Your task to perform on an android device: turn pop-ups off in chrome Image 0: 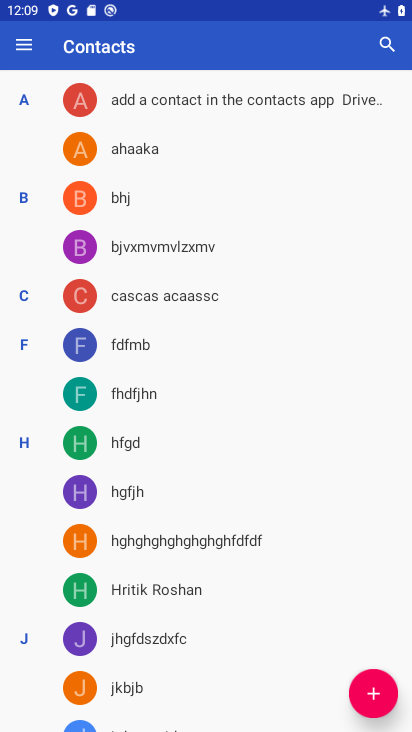
Step 0: press home button
Your task to perform on an android device: turn pop-ups off in chrome Image 1: 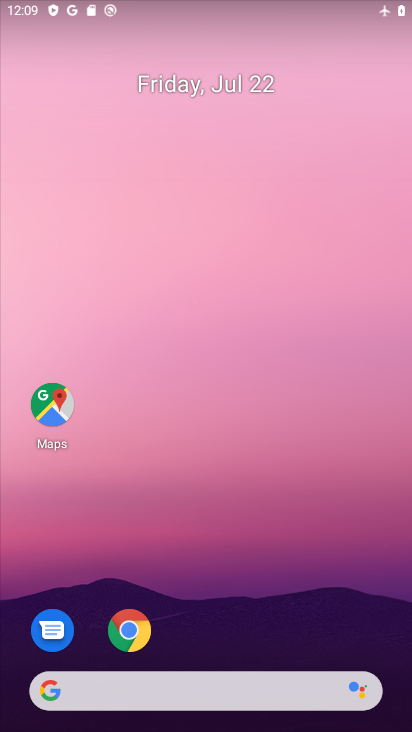
Step 1: drag from (241, 654) to (365, 608)
Your task to perform on an android device: turn pop-ups off in chrome Image 2: 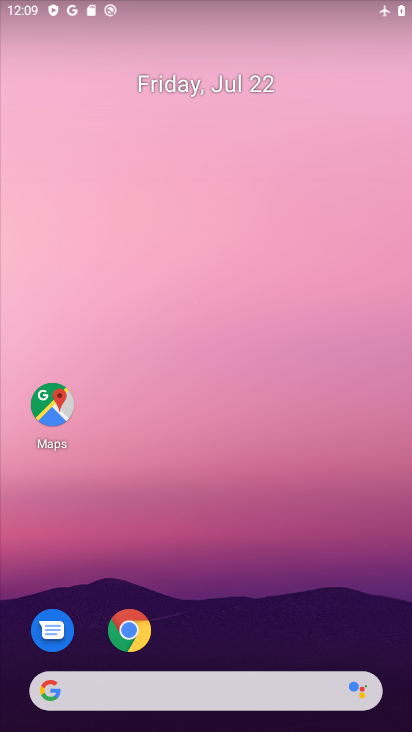
Step 2: drag from (201, 657) to (142, 63)
Your task to perform on an android device: turn pop-ups off in chrome Image 3: 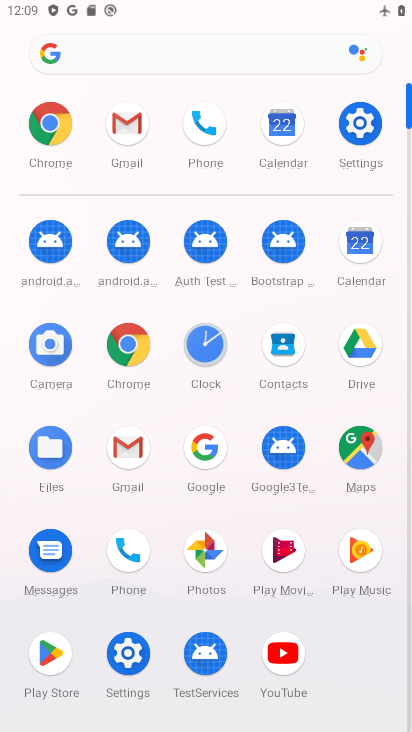
Step 3: click (128, 338)
Your task to perform on an android device: turn pop-ups off in chrome Image 4: 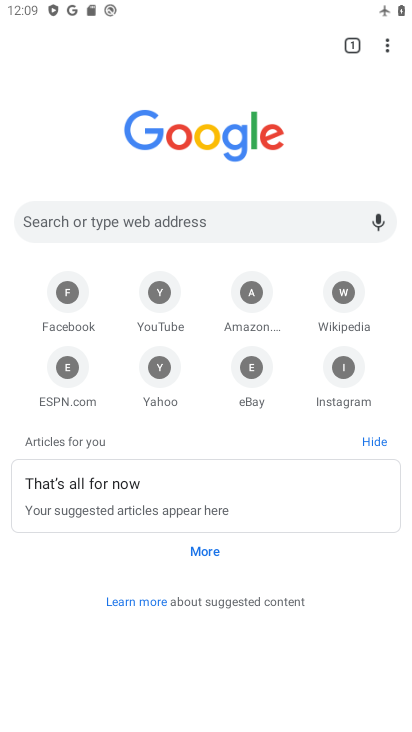
Step 4: click (382, 42)
Your task to perform on an android device: turn pop-ups off in chrome Image 5: 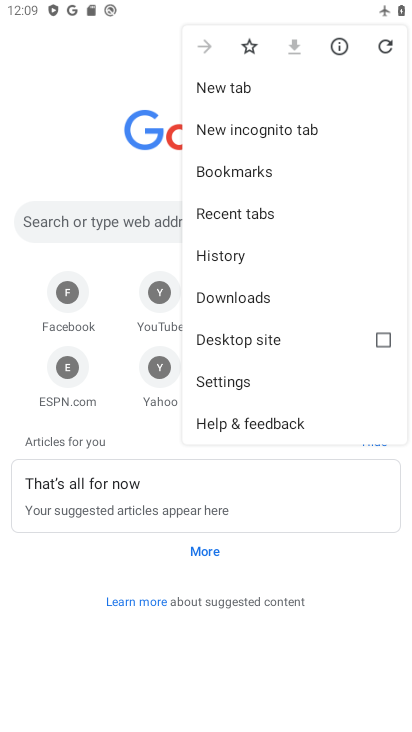
Step 5: click (222, 383)
Your task to perform on an android device: turn pop-ups off in chrome Image 6: 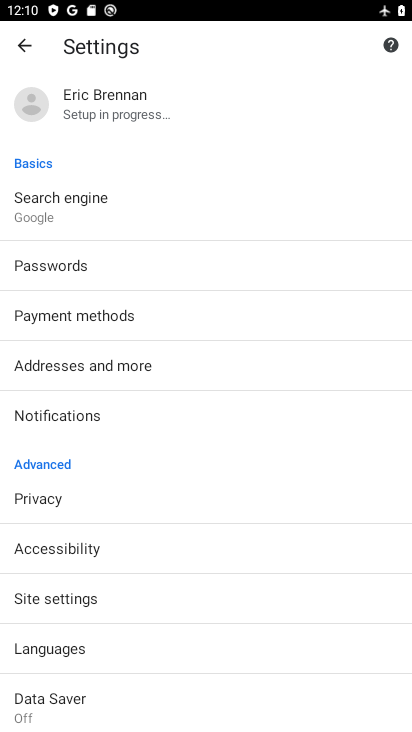
Step 6: click (74, 647)
Your task to perform on an android device: turn pop-ups off in chrome Image 7: 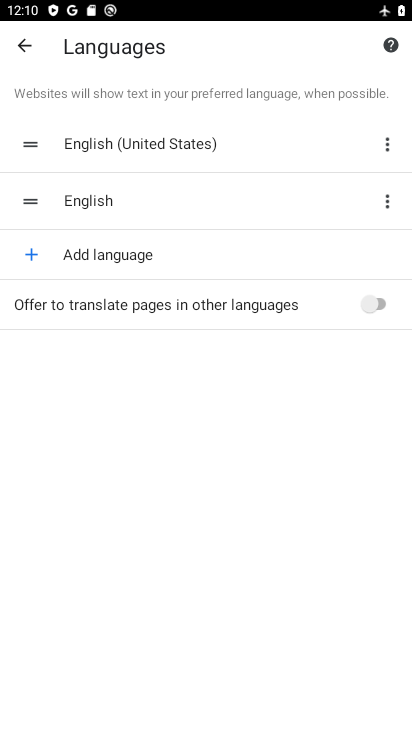
Step 7: click (25, 48)
Your task to perform on an android device: turn pop-ups off in chrome Image 8: 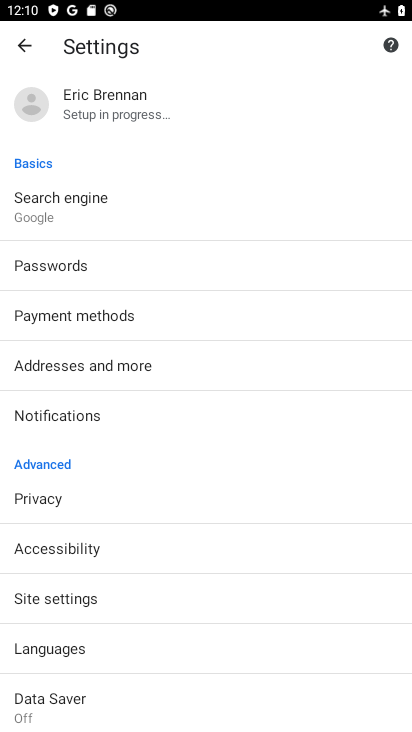
Step 8: click (90, 591)
Your task to perform on an android device: turn pop-ups off in chrome Image 9: 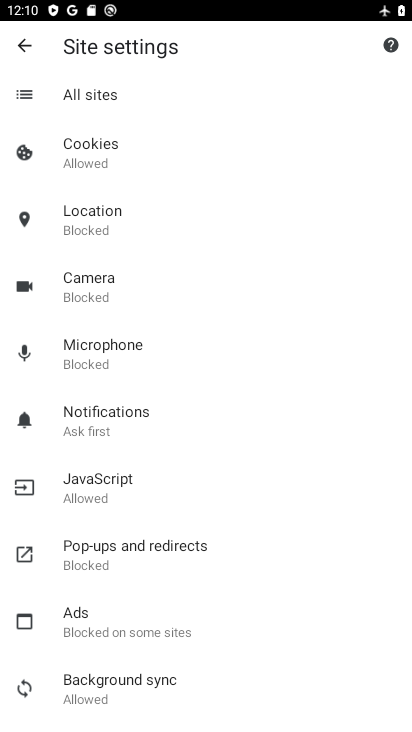
Step 9: click (135, 558)
Your task to perform on an android device: turn pop-ups off in chrome Image 10: 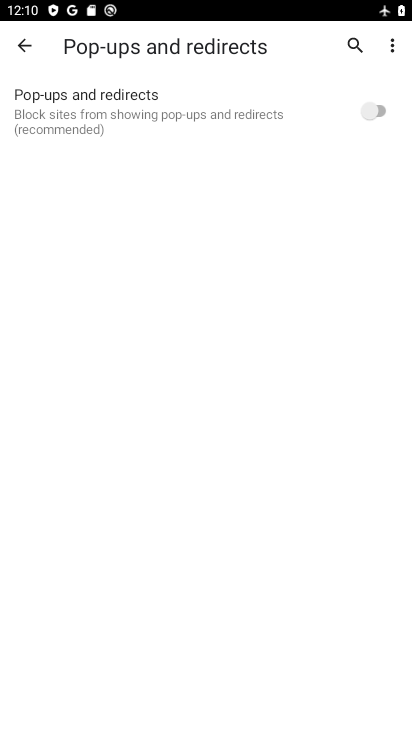
Step 10: task complete